Your task to perform on an android device: open the mobile data screen to see how much data has been used Image 0: 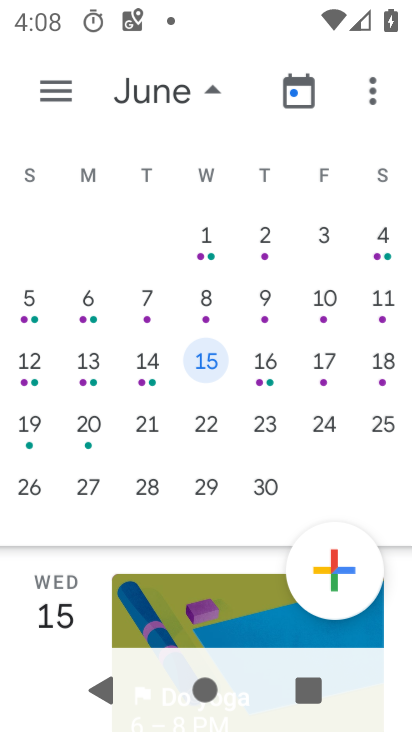
Step 0: drag from (218, 522) to (319, 63)
Your task to perform on an android device: open the mobile data screen to see how much data has been used Image 1: 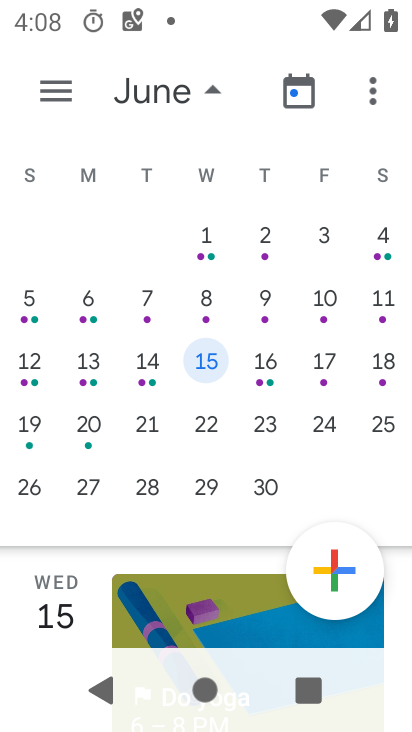
Step 1: press home button
Your task to perform on an android device: open the mobile data screen to see how much data has been used Image 2: 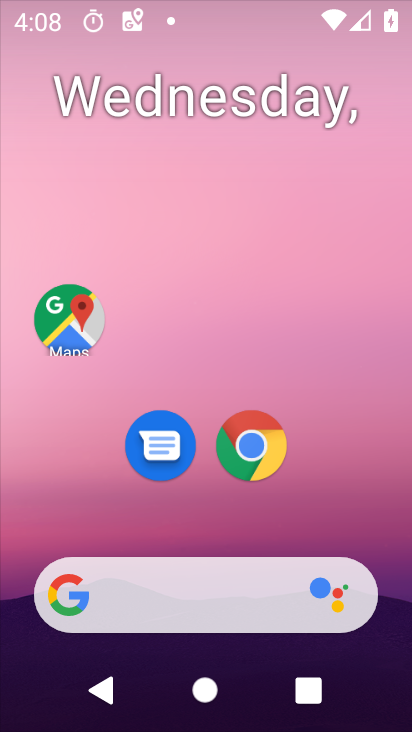
Step 2: drag from (210, 517) to (238, 78)
Your task to perform on an android device: open the mobile data screen to see how much data has been used Image 3: 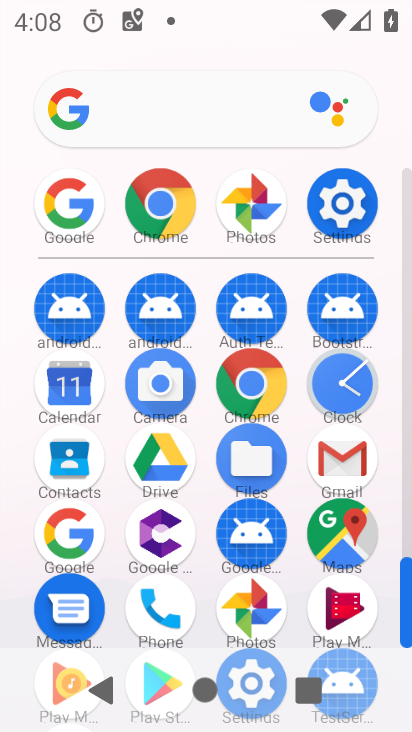
Step 3: click (343, 205)
Your task to perform on an android device: open the mobile data screen to see how much data has been used Image 4: 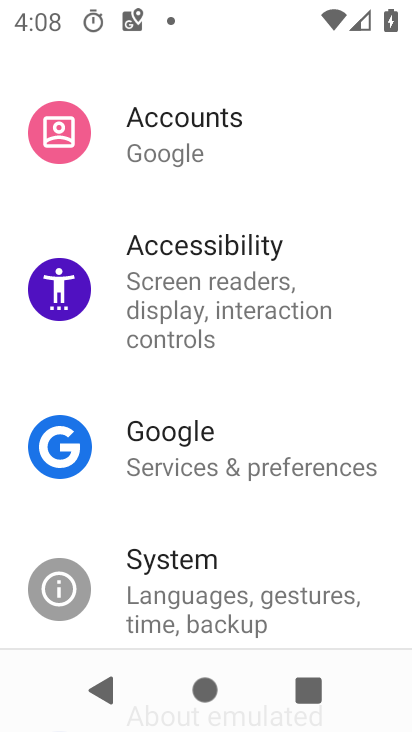
Step 4: drag from (224, 174) to (350, 676)
Your task to perform on an android device: open the mobile data screen to see how much data has been used Image 5: 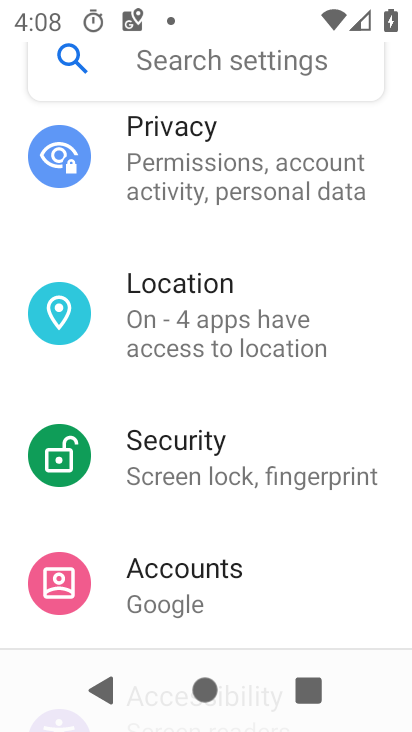
Step 5: drag from (223, 252) to (293, 730)
Your task to perform on an android device: open the mobile data screen to see how much data has been used Image 6: 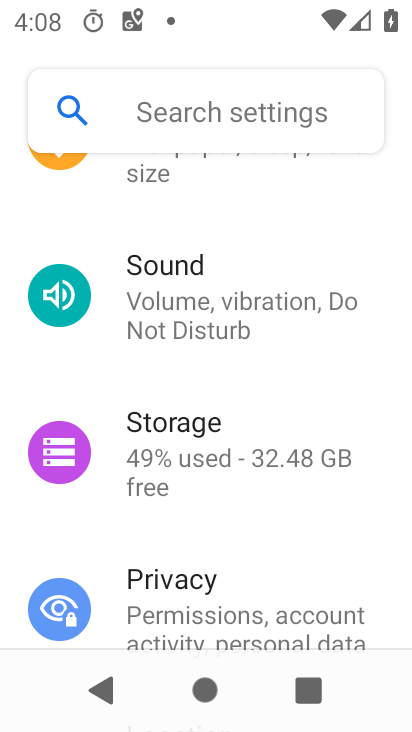
Step 6: drag from (208, 209) to (294, 694)
Your task to perform on an android device: open the mobile data screen to see how much data has been used Image 7: 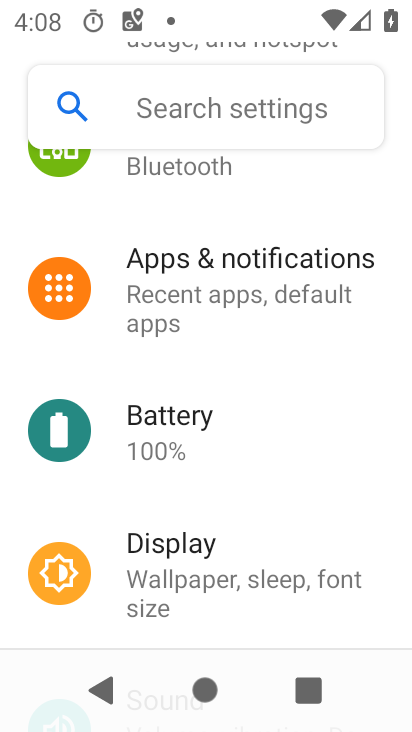
Step 7: drag from (211, 276) to (247, 650)
Your task to perform on an android device: open the mobile data screen to see how much data has been used Image 8: 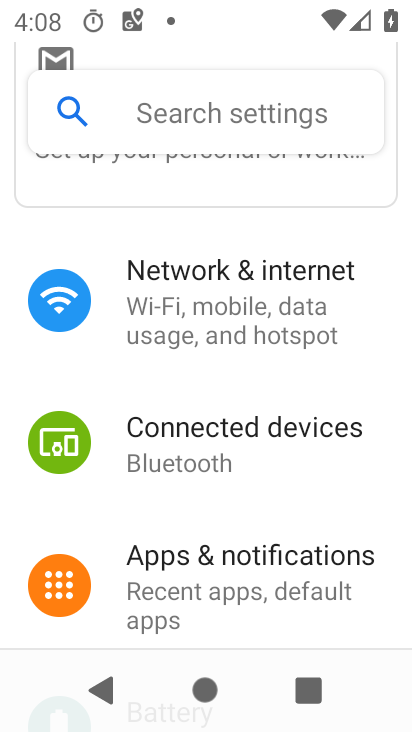
Step 8: click (230, 304)
Your task to perform on an android device: open the mobile data screen to see how much data has been used Image 9: 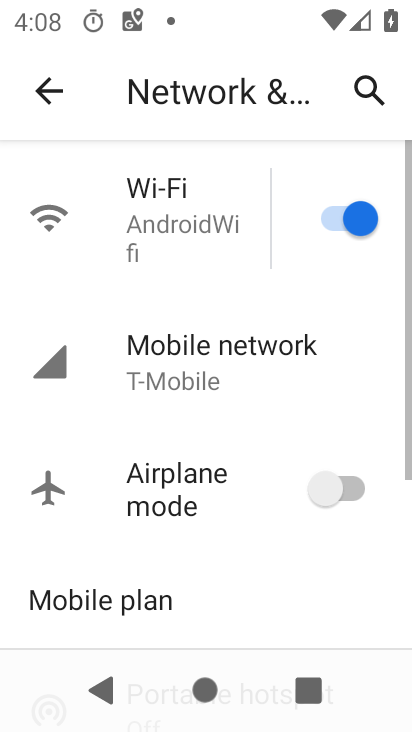
Step 9: click (192, 358)
Your task to perform on an android device: open the mobile data screen to see how much data has been used Image 10: 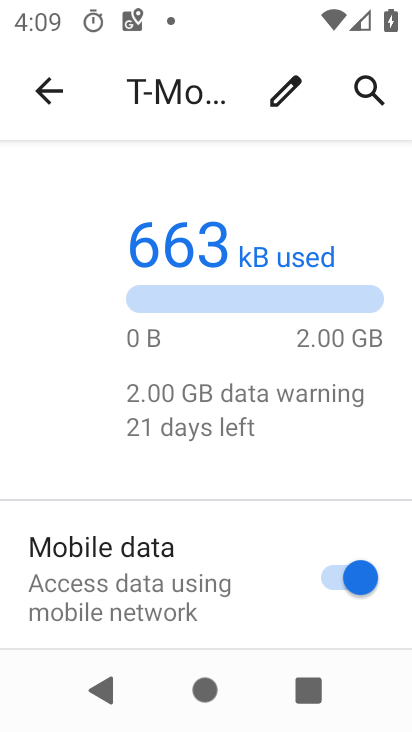
Step 10: task complete